Your task to perform on an android device: turn off priority inbox in the gmail app Image 0: 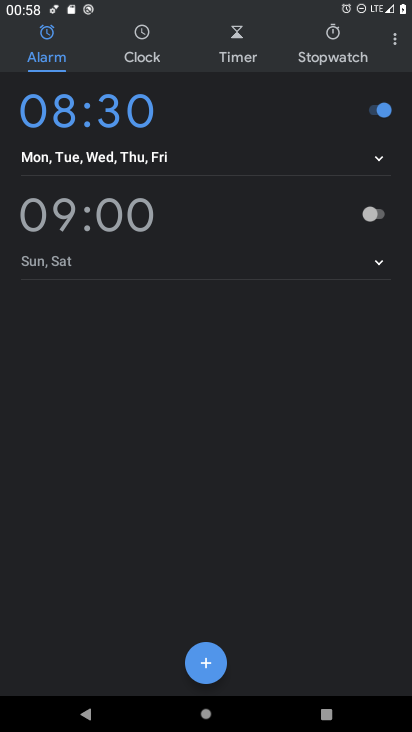
Step 0: press home button
Your task to perform on an android device: turn off priority inbox in the gmail app Image 1: 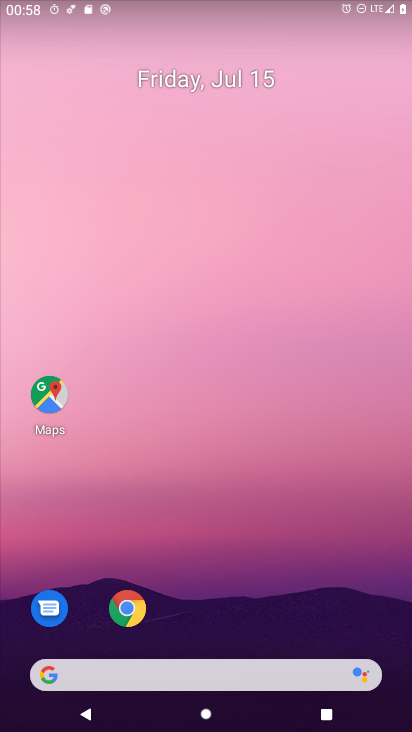
Step 1: drag from (234, 566) to (310, 20)
Your task to perform on an android device: turn off priority inbox in the gmail app Image 2: 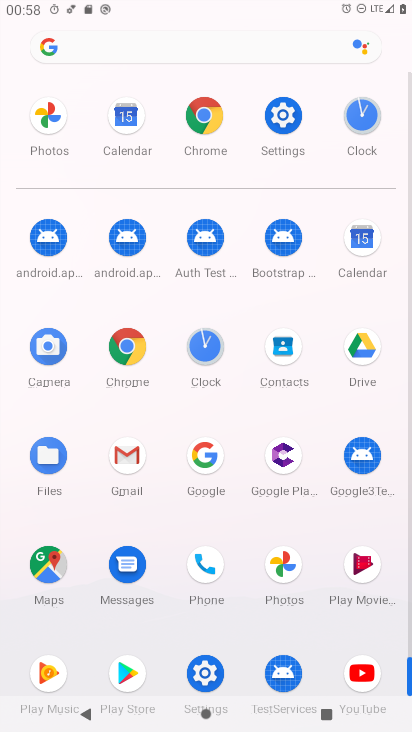
Step 2: click (137, 454)
Your task to perform on an android device: turn off priority inbox in the gmail app Image 3: 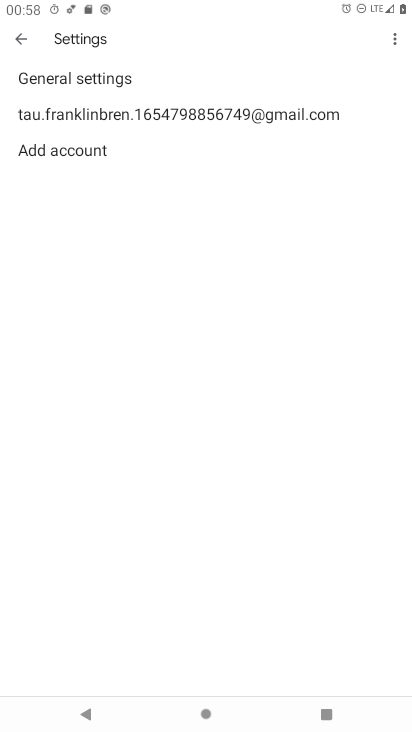
Step 3: click (116, 115)
Your task to perform on an android device: turn off priority inbox in the gmail app Image 4: 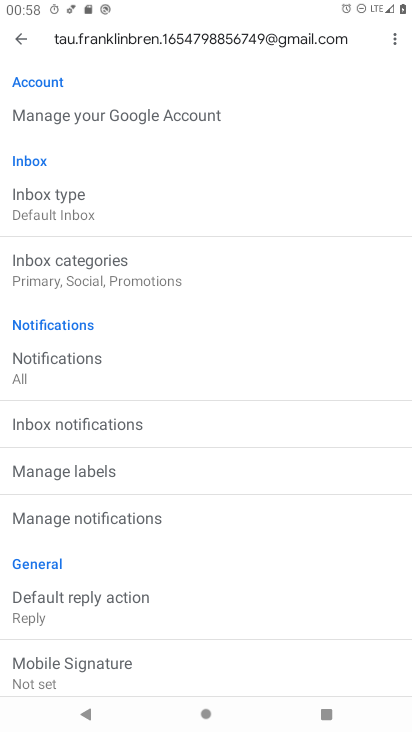
Step 4: click (89, 210)
Your task to perform on an android device: turn off priority inbox in the gmail app Image 5: 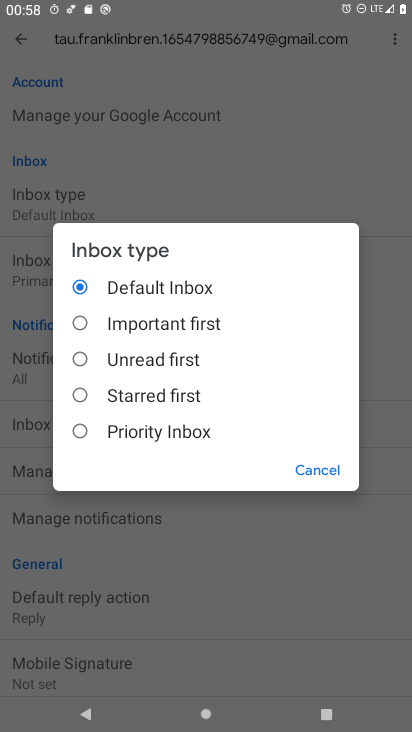
Step 5: task complete